Your task to perform on an android device: check data usage Image 0: 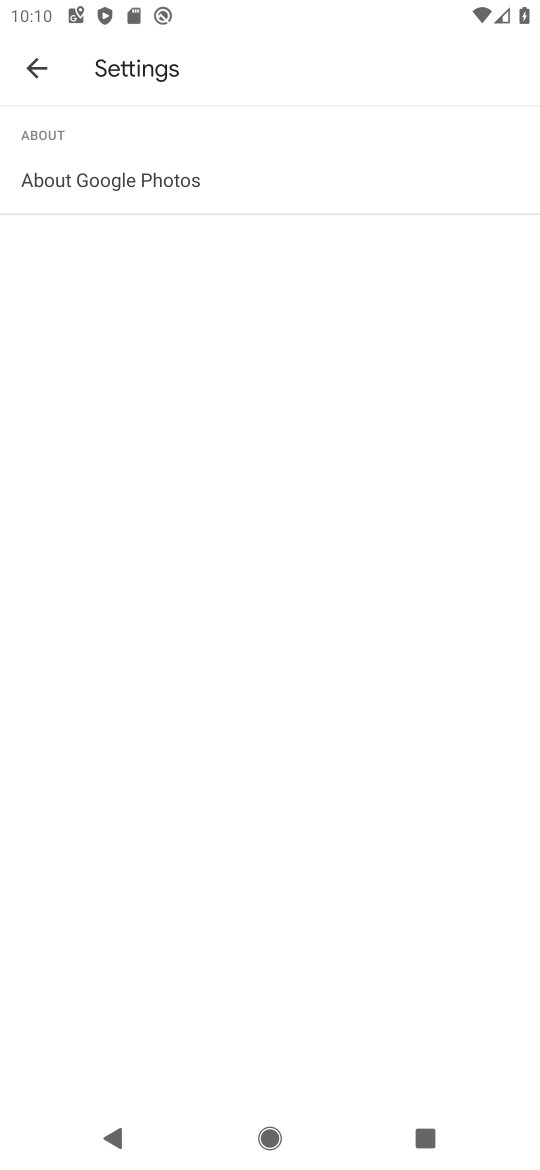
Step 0: press home button
Your task to perform on an android device: check data usage Image 1: 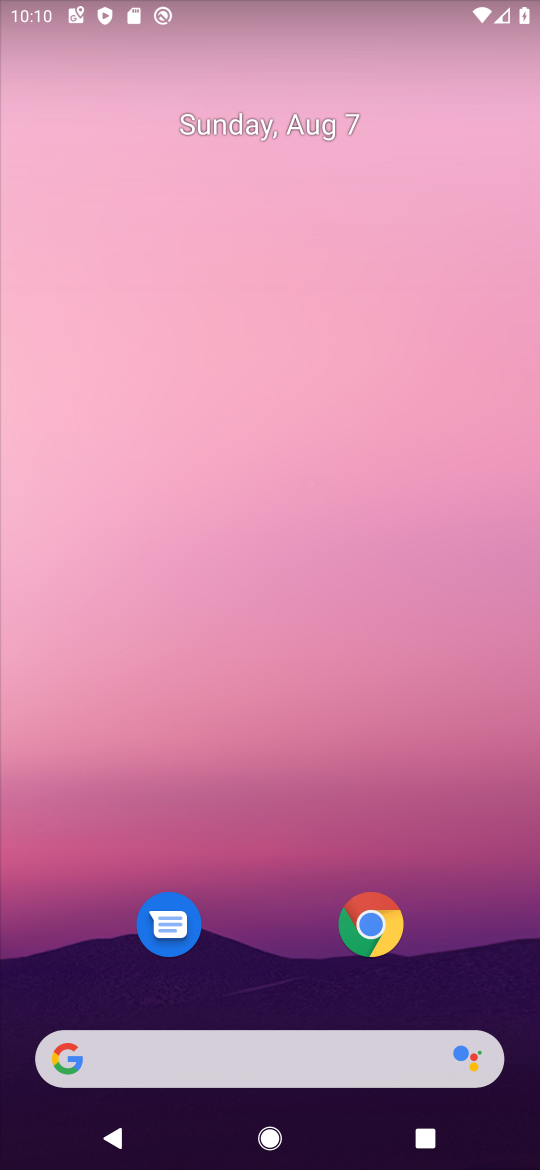
Step 1: drag from (466, 17) to (366, 852)
Your task to perform on an android device: check data usage Image 2: 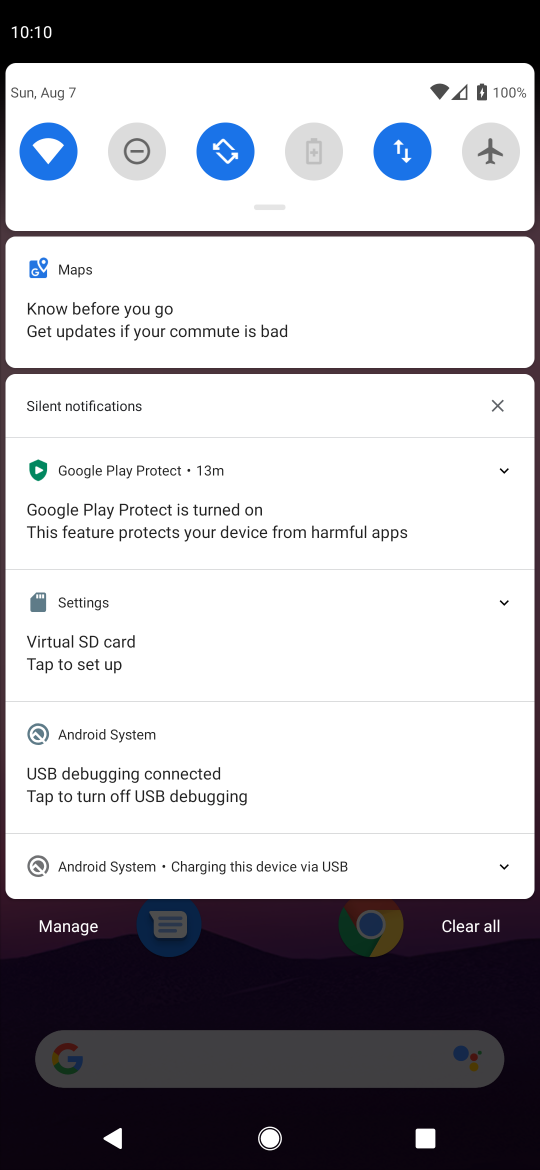
Step 2: click (403, 142)
Your task to perform on an android device: check data usage Image 3: 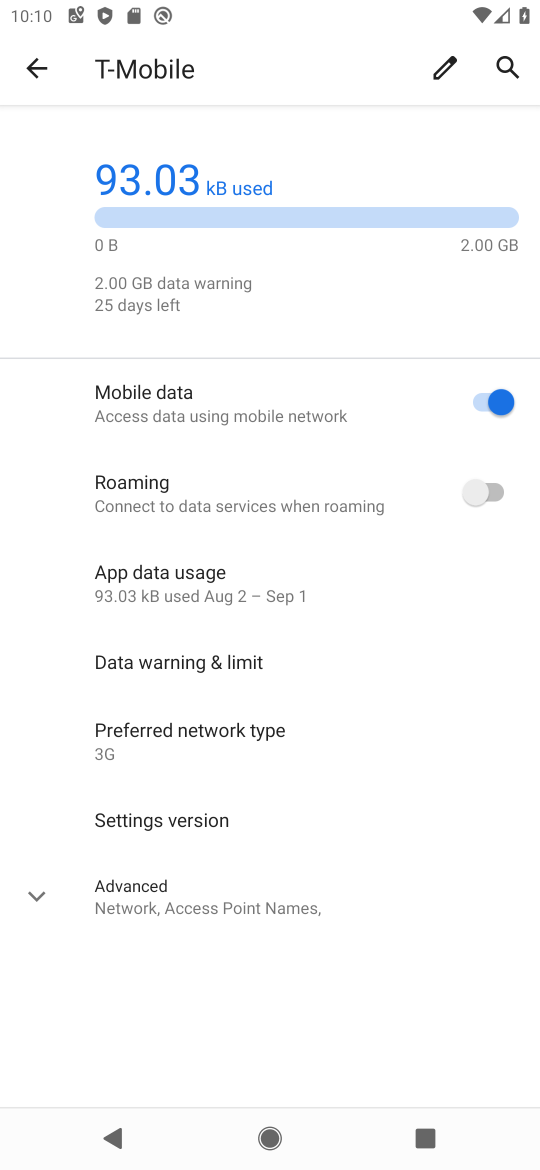
Step 3: task complete